Your task to perform on an android device: open app "DuckDuckGo Privacy Browser" Image 0: 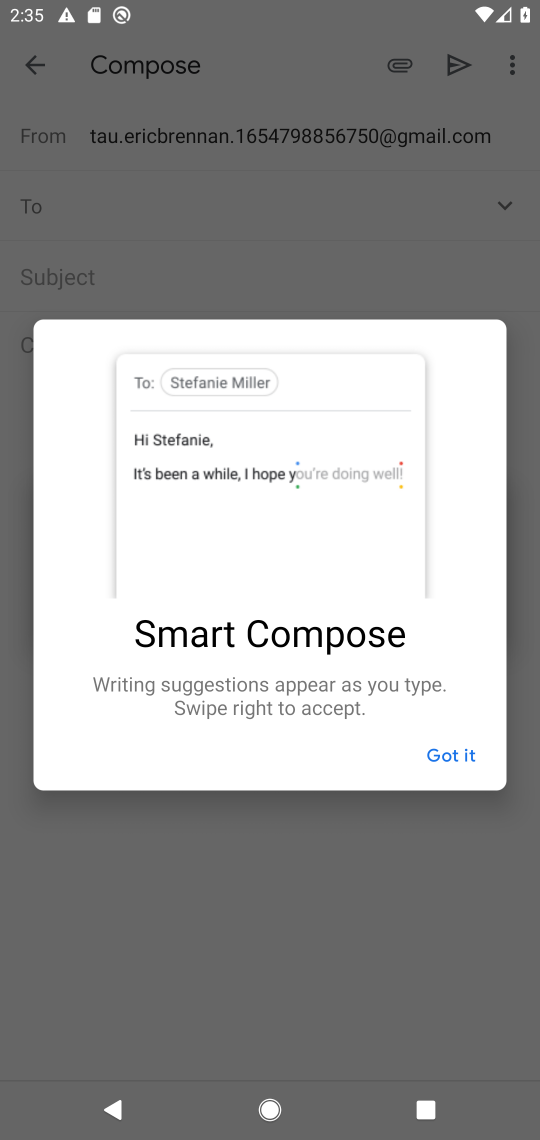
Step 0: press home button
Your task to perform on an android device: open app "DuckDuckGo Privacy Browser" Image 1: 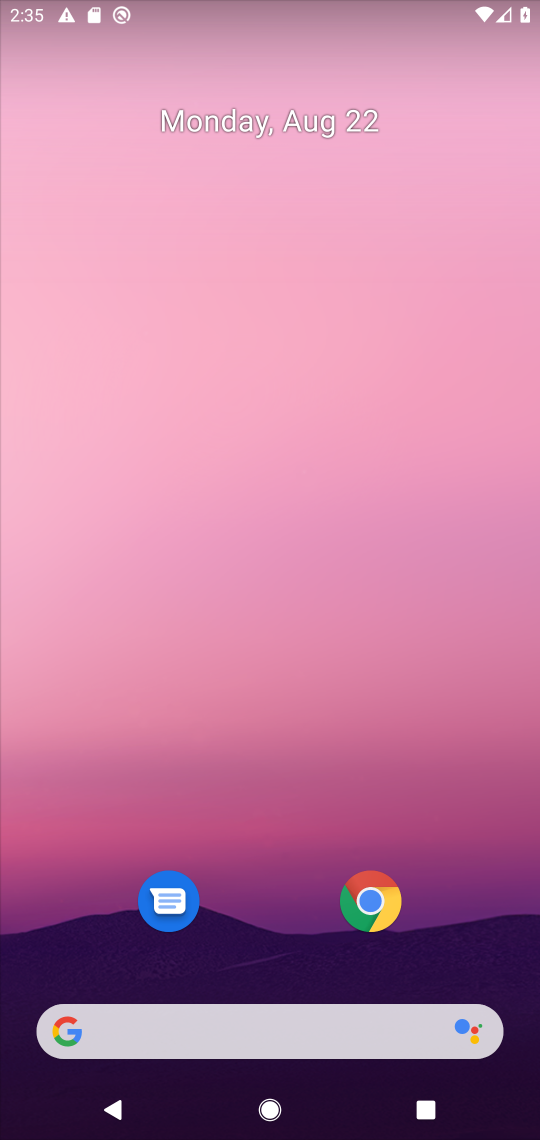
Step 1: drag from (514, 966) to (377, 344)
Your task to perform on an android device: open app "DuckDuckGo Privacy Browser" Image 2: 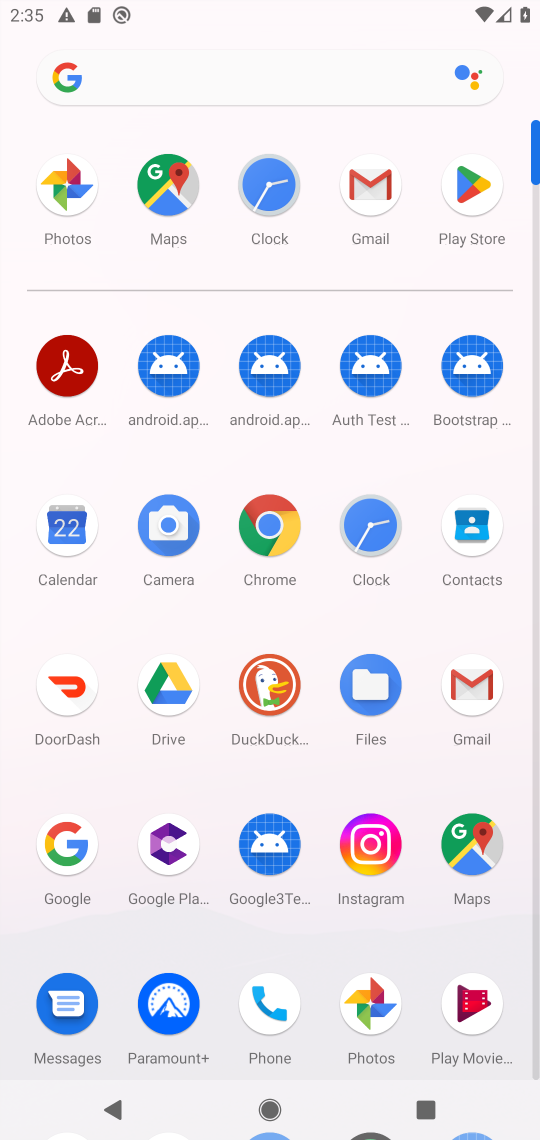
Step 2: drag from (312, 946) to (299, 506)
Your task to perform on an android device: open app "DuckDuckGo Privacy Browser" Image 3: 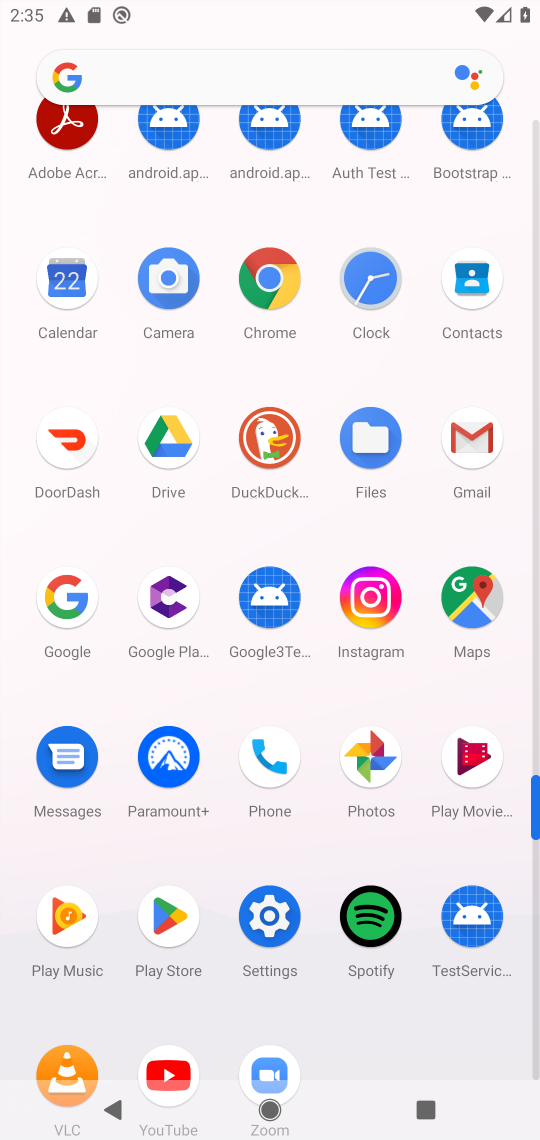
Step 3: click (167, 912)
Your task to perform on an android device: open app "DuckDuckGo Privacy Browser" Image 4: 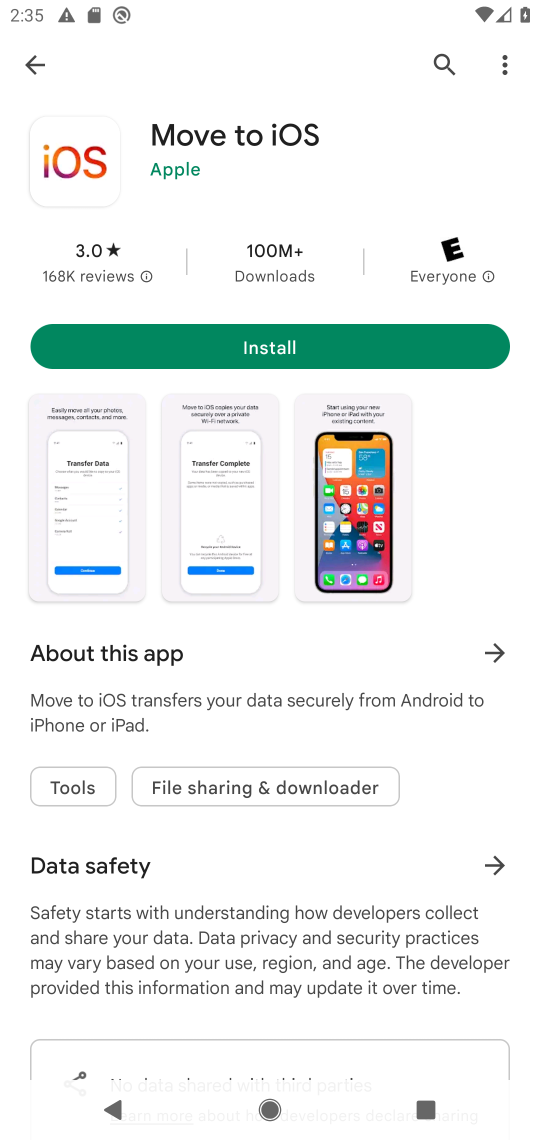
Step 4: click (431, 57)
Your task to perform on an android device: open app "DuckDuckGo Privacy Browser" Image 5: 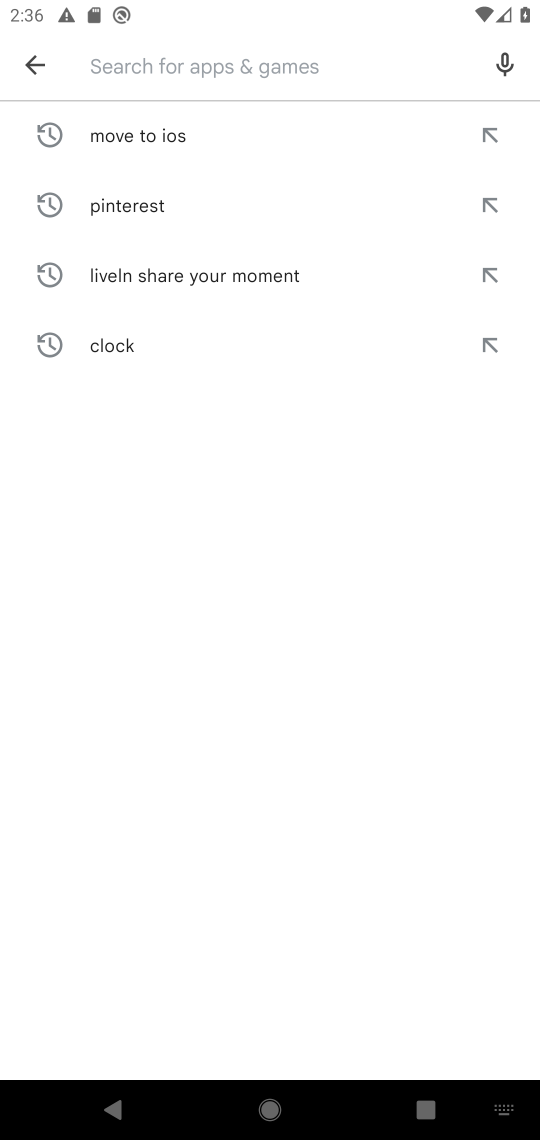
Step 5: type "DuckDuckGo Privacy Browser"
Your task to perform on an android device: open app "DuckDuckGo Privacy Browser" Image 6: 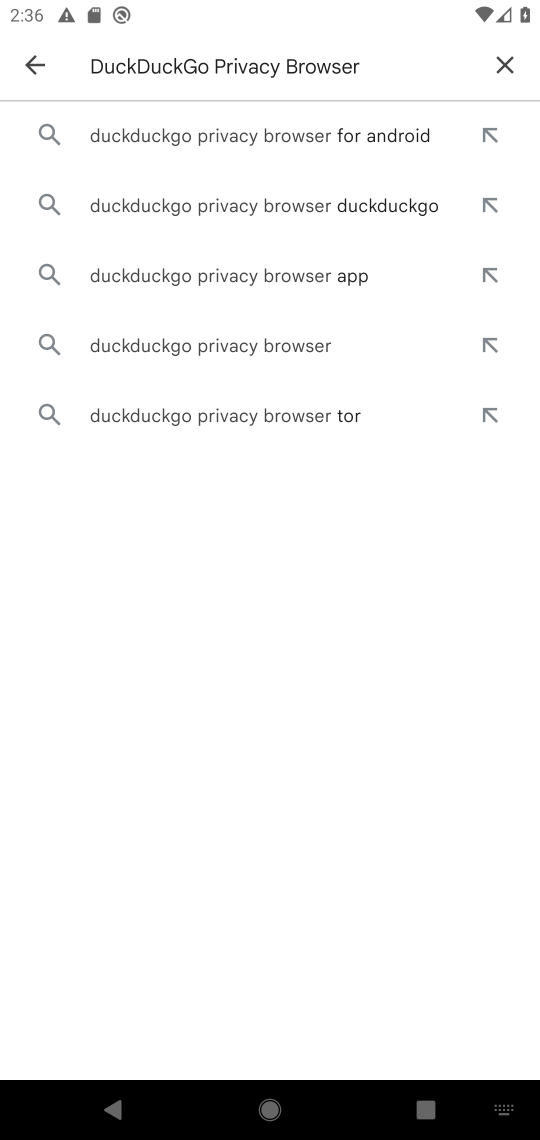
Step 6: click (174, 131)
Your task to perform on an android device: open app "DuckDuckGo Privacy Browser" Image 7: 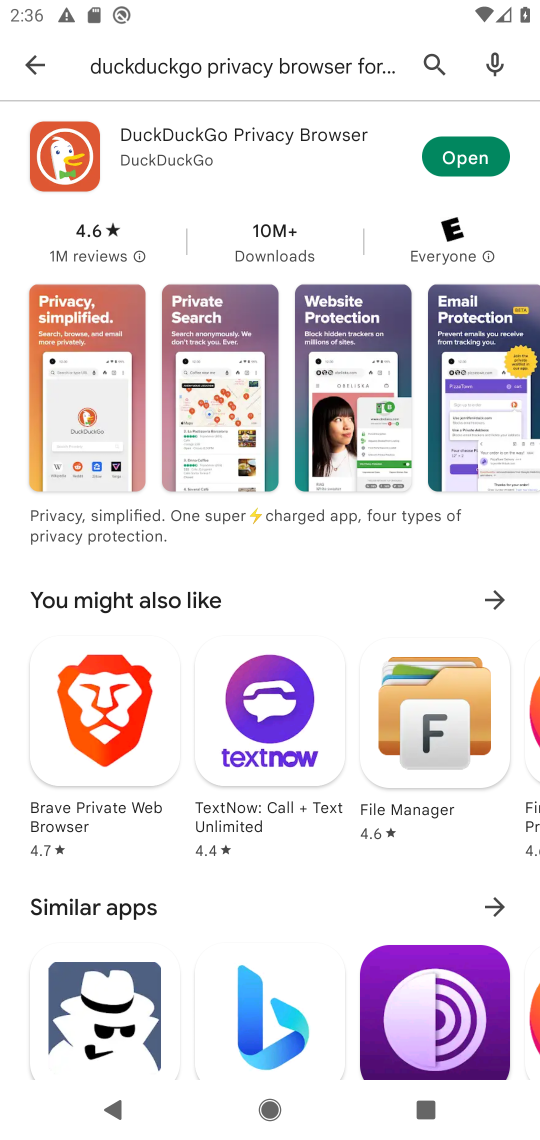
Step 7: click (479, 155)
Your task to perform on an android device: open app "DuckDuckGo Privacy Browser" Image 8: 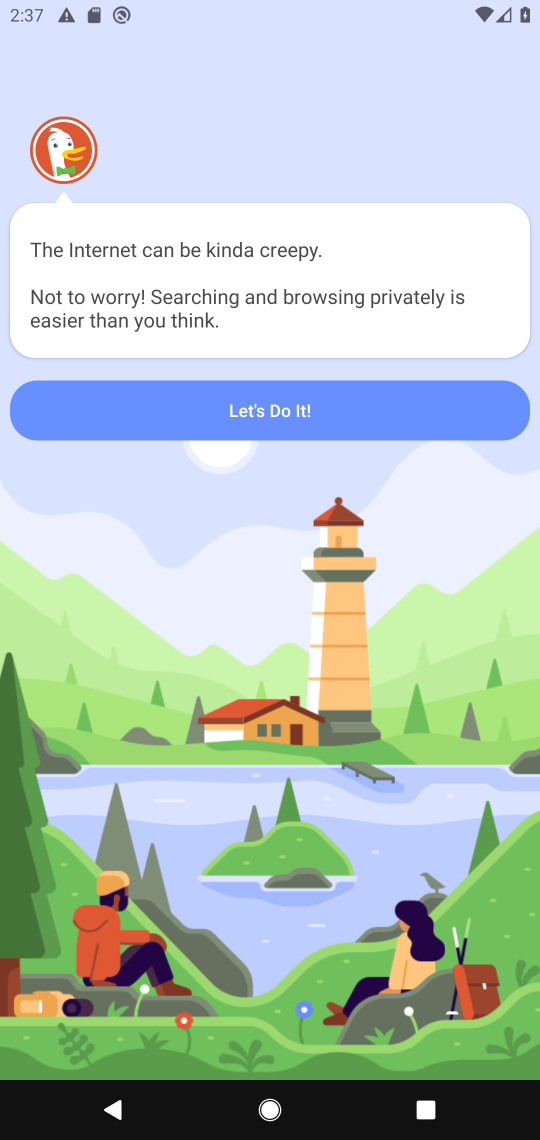
Step 8: task complete